Your task to perform on an android device: Open Chrome and go to settings Image 0: 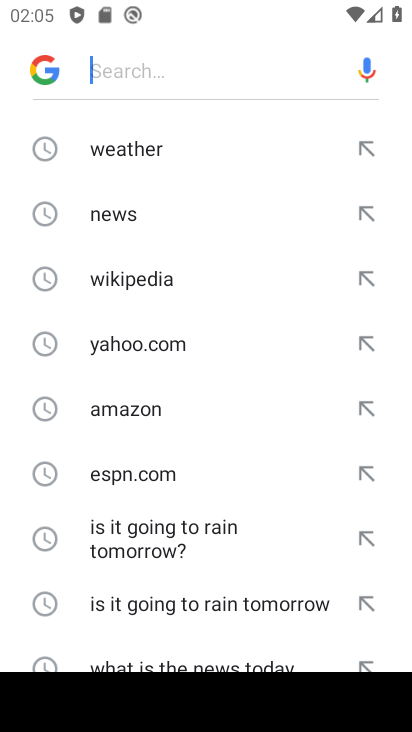
Step 0: press back button
Your task to perform on an android device: Open Chrome and go to settings Image 1: 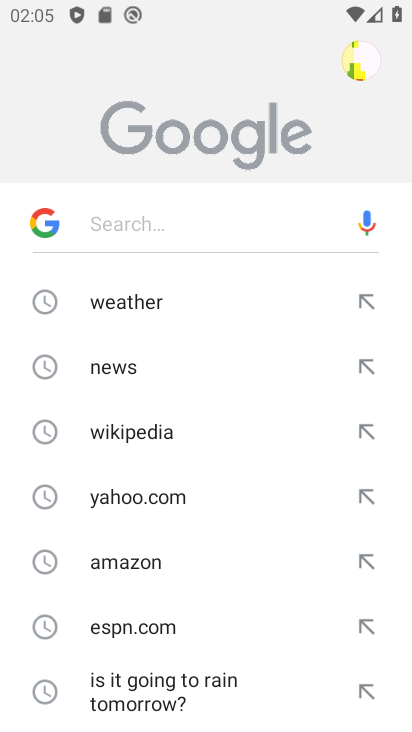
Step 1: press back button
Your task to perform on an android device: Open Chrome and go to settings Image 2: 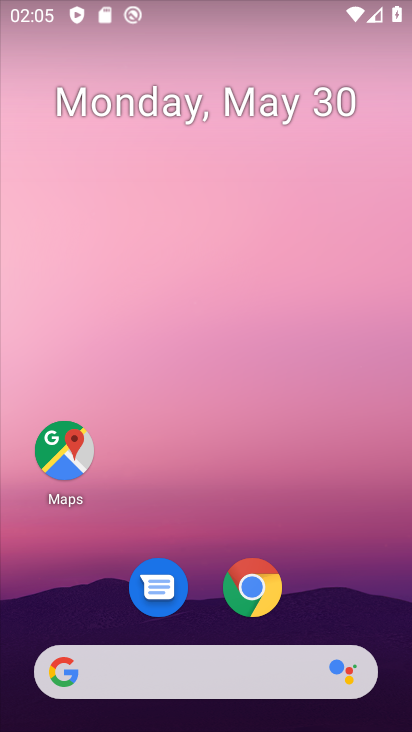
Step 2: drag from (253, 599) to (310, 599)
Your task to perform on an android device: Open Chrome and go to settings Image 3: 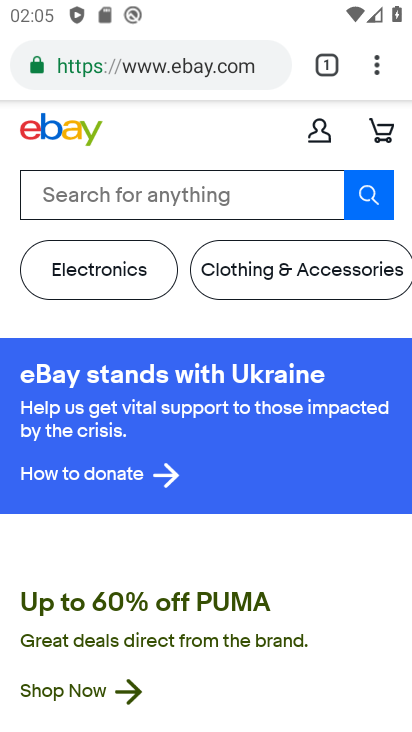
Step 3: click (380, 66)
Your task to perform on an android device: Open Chrome and go to settings Image 4: 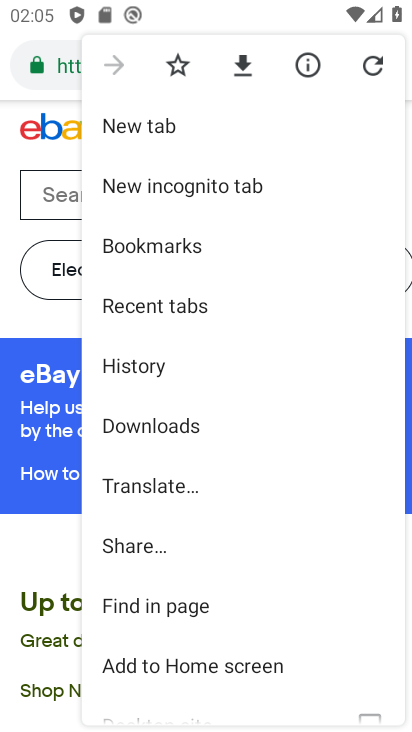
Step 4: drag from (210, 506) to (332, 155)
Your task to perform on an android device: Open Chrome and go to settings Image 5: 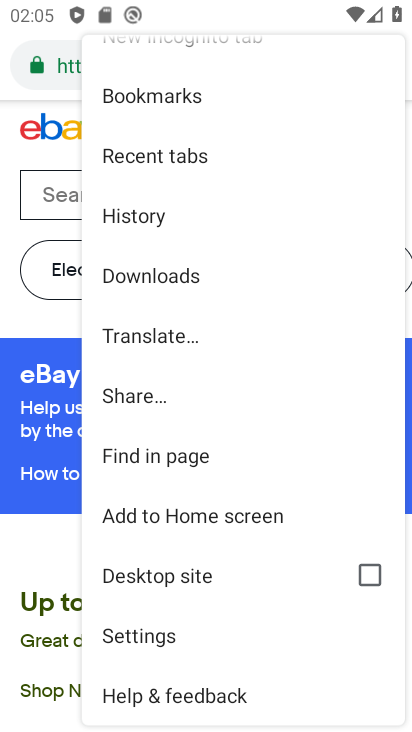
Step 5: click (175, 624)
Your task to perform on an android device: Open Chrome and go to settings Image 6: 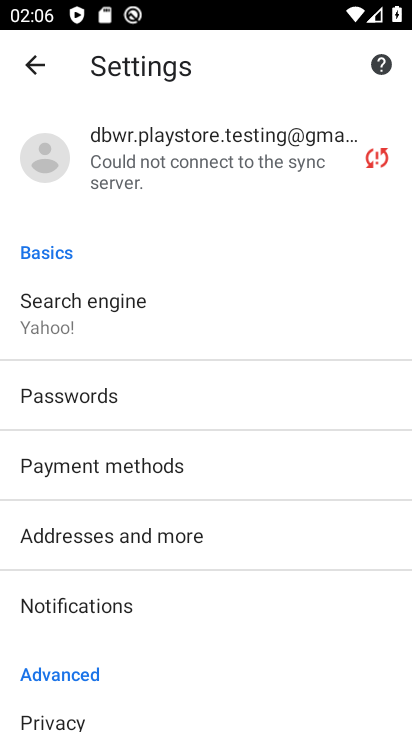
Step 6: task complete